Your task to perform on an android device: set default search engine in the chrome app Image 0: 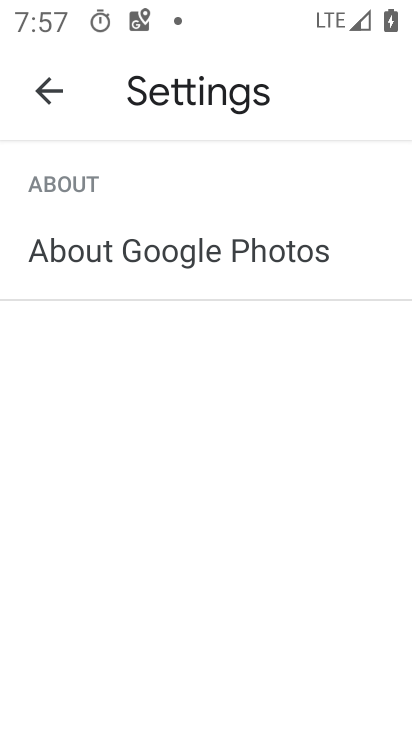
Step 0: press home button
Your task to perform on an android device: set default search engine in the chrome app Image 1: 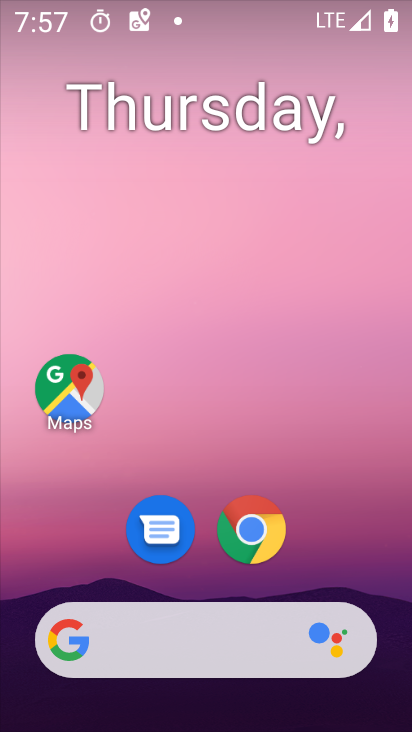
Step 1: drag from (380, 573) to (374, 208)
Your task to perform on an android device: set default search engine in the chrome app Image 2: 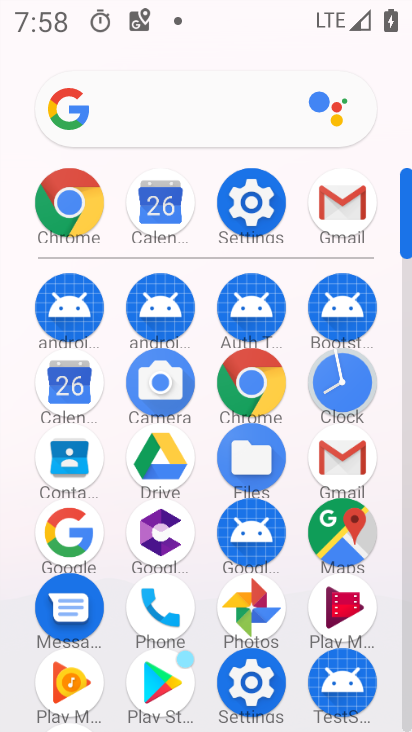
Step 2: click (239, 385)
Your task to perform on an android device: set default search engine in the chrome app Image 3: 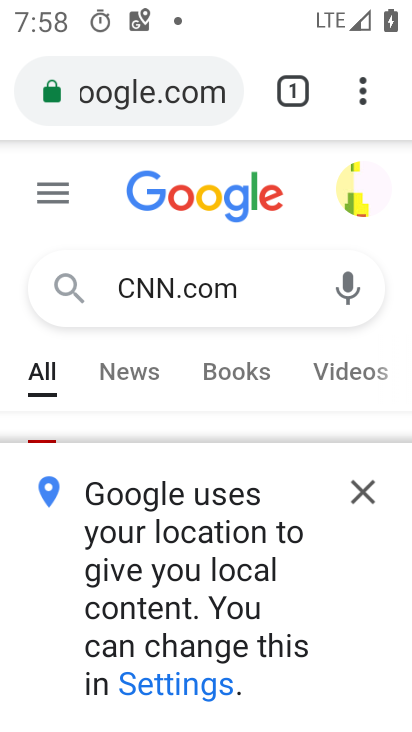
Step 3: click (362, 102)
Your task to perform on an android device: set default search engine in the chrome app Image 4: 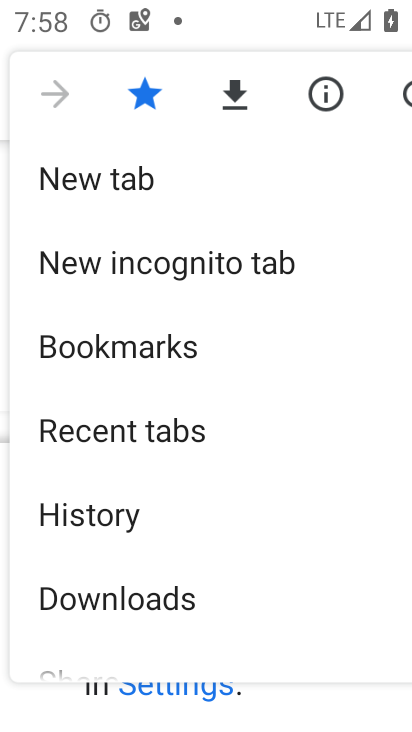
Step 4: drag from (292, 561) to (312, 273)
Your task to perform on an android device: set default search engine in the chrome app Image 5: 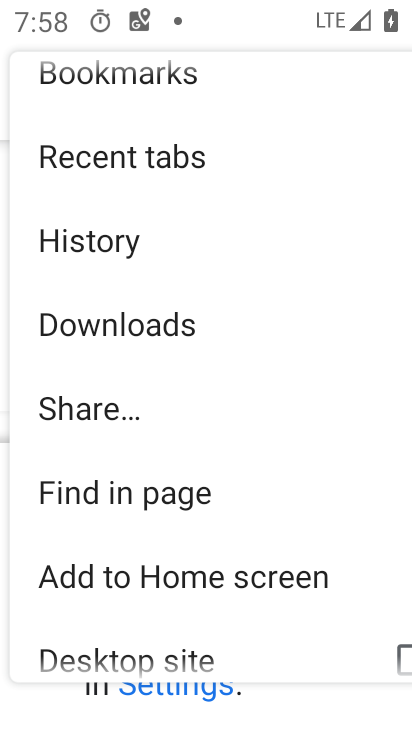
Step 5: drag from (316, 255) to (316, 404)
Your task to perform on an android device: set default search engine in the chrome app Image 6: 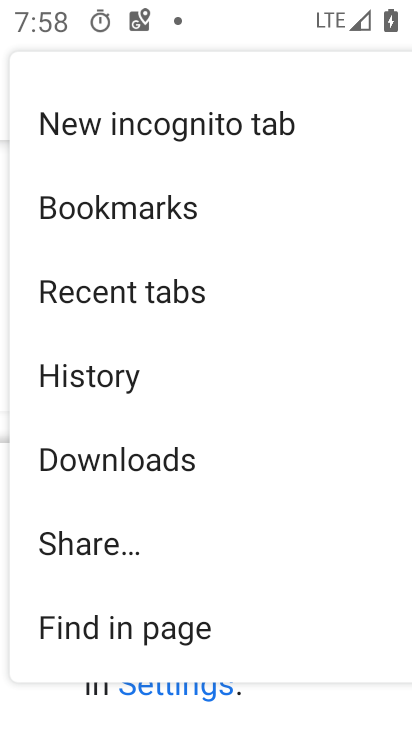
Step 6: drag from (317, 221) to (319, 358)
Your task to perform on an android device: set default search engine in the chrome app Image 7: 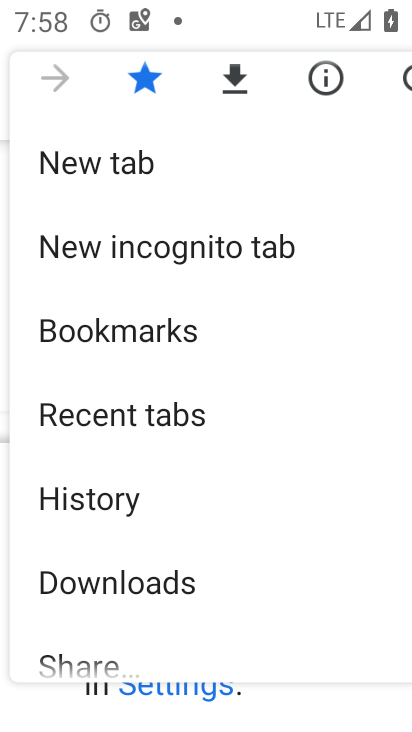
Step 7: drag from (307, 424) to (311, 260)
Your task to perform on an android device: set default search engine in the chrome app Image 8: 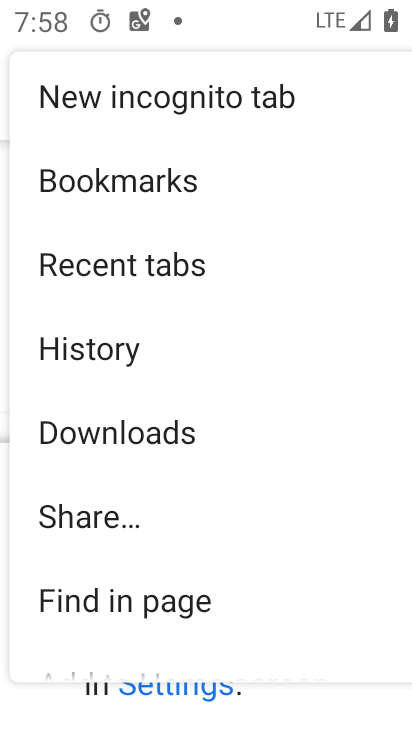
Step 8: drag from (309, 471) to (307, 300)
Your task to perform on an android device: set default search engine in the chrome app Image 9: 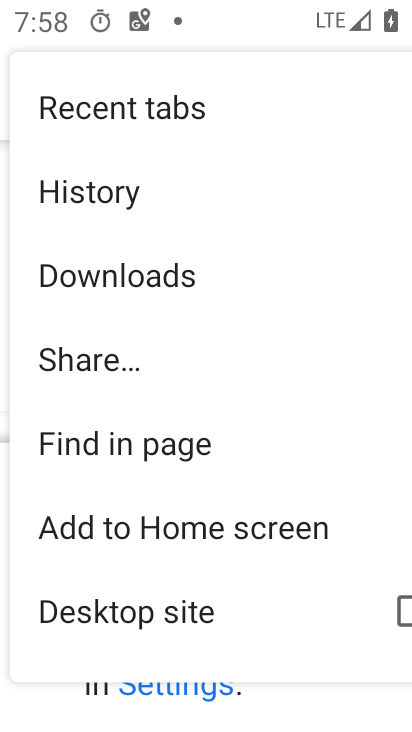
Step 9: drag from (318, 530) to (333, 338)
Your task to perform on an android device: set default search engine in the chrome app Image 10: 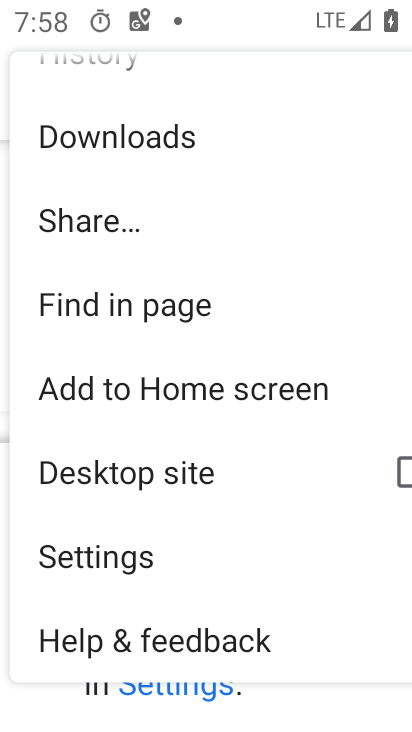
Step 10: click (138, 567)
Your task to perform on an android device: set default search engine in the chrome app Image 11: 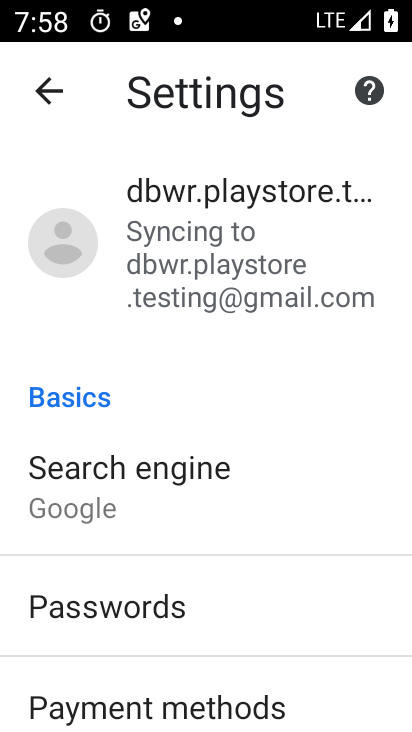
Step 11: drag from (272, 618) to (295, 457)
Your task to perform on an android device: set default search engine in the chrome app Image 12: 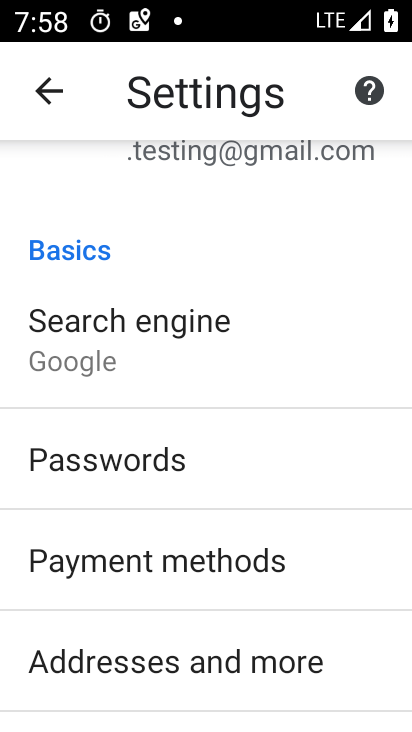
Step 12: drag from (325, 596) to (332, 446)
Your task to perform on an android device: set default search engine in the chrome app Image 13: 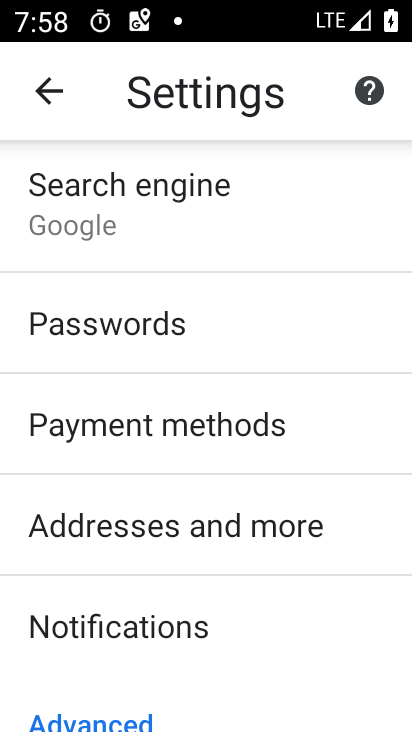
Step 13: drag from (336, 621) to (334, 451)
Your task to perform on an android device: set default search engine in the chrome app Image 14: 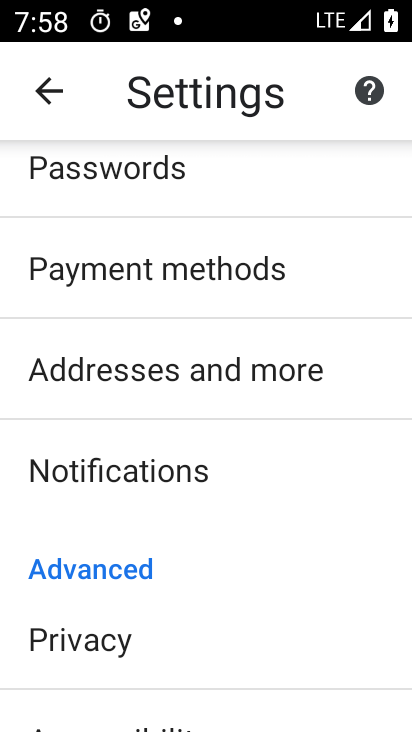
Step 14: drag from (334, 330) to (347, 507)
Your task to perform on an android device: set default search engine in the chrome app Image 15: 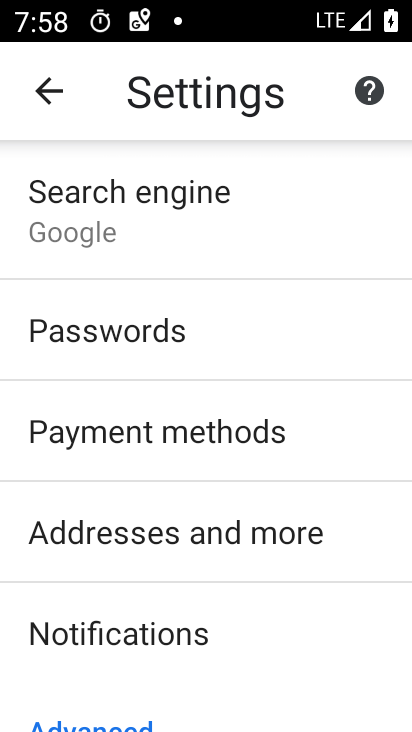
Step 15: drag from (347, 329) to (342, 492)
Your task to perform on an android device: set default search engine in the chrome app Image 16: 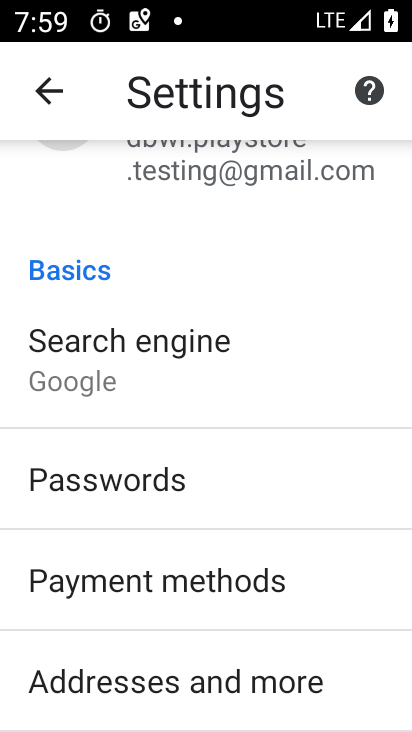
Step 16: click (212, 357)
Your task to perform on an android device: set default search engine in the chrome app Image 17: 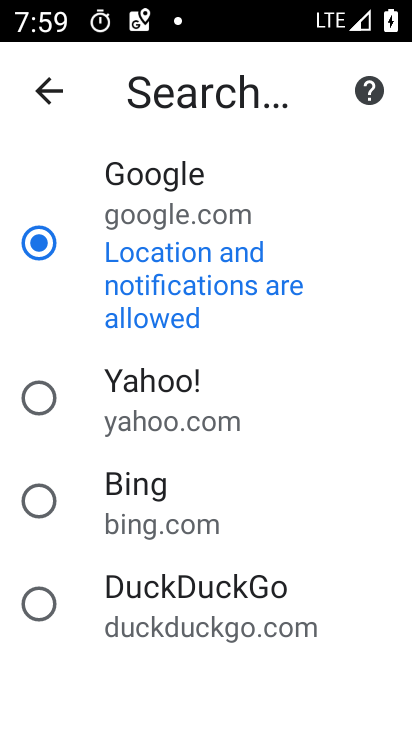
Step 17: click (154, 496)
Your task to perform on an android device: set default search engine in the chrome app Image 18: 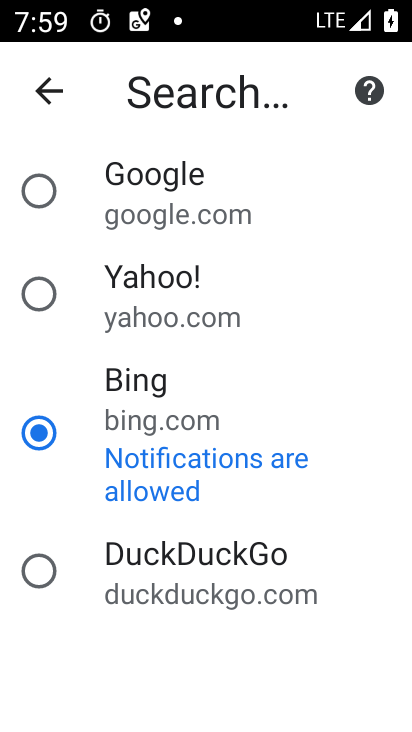
Step 18: task complete